Your task to perform on an android device: Clear the cart on ebay.com. Search for razer kraken on ebay.com, select the first entry, and add it to the cart. Image 0: 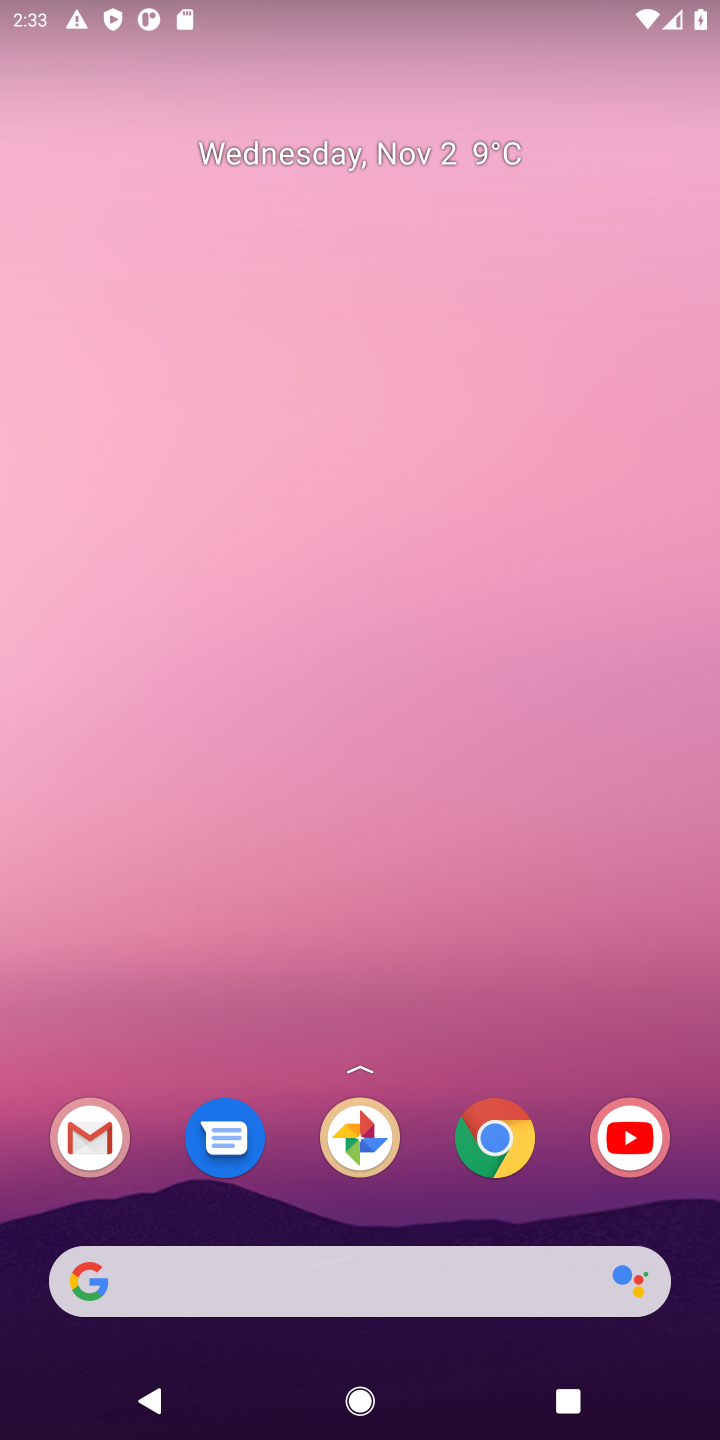
Step 0: click (507, 1150)
Your task to perform on an android device: Clear the cart on ebay.com. Search for razer kraken on ebay.com, select the first entry, and add it to the cart. Image 1: 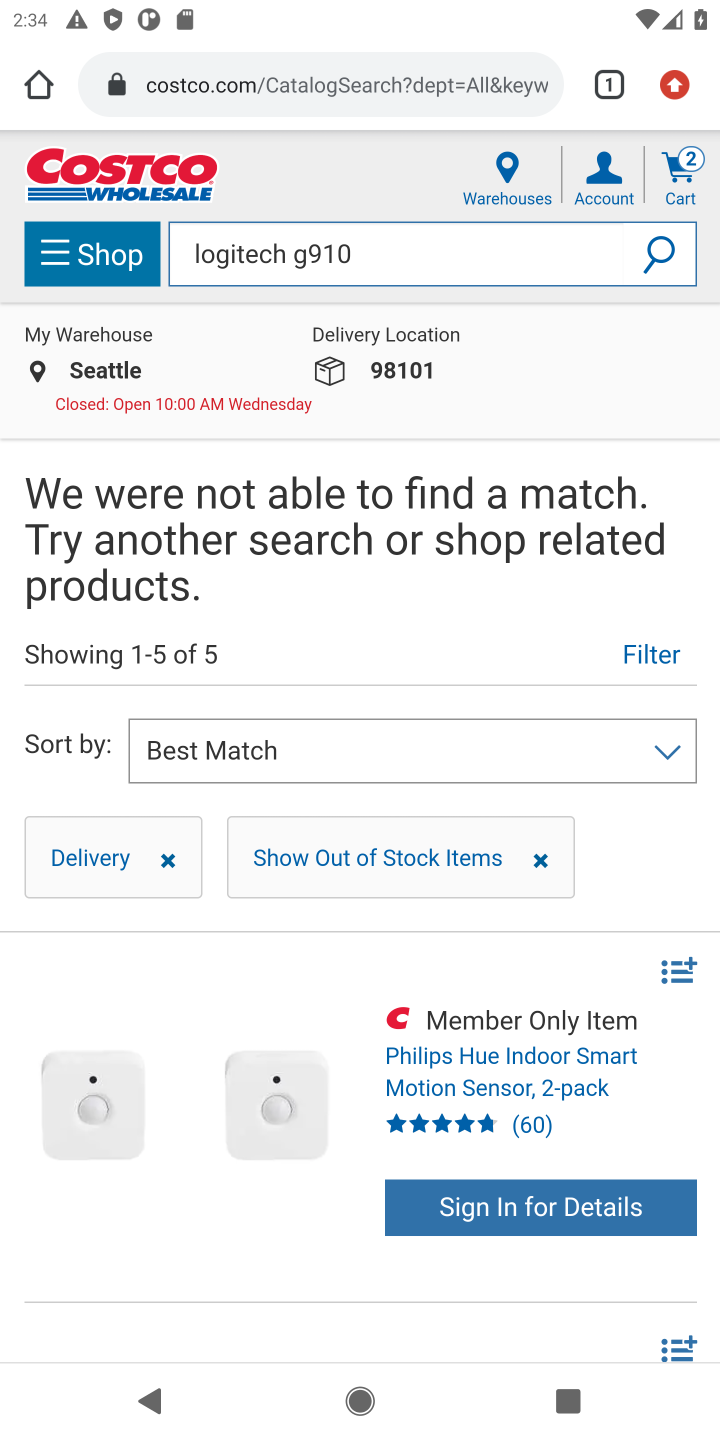
Step 1: click (370, 86)
Your task to perform on an android device: Clear the cart on ebay.com. Search for razer kraken on ebay.com, select the first entry, and add it to the cart. Image 2: 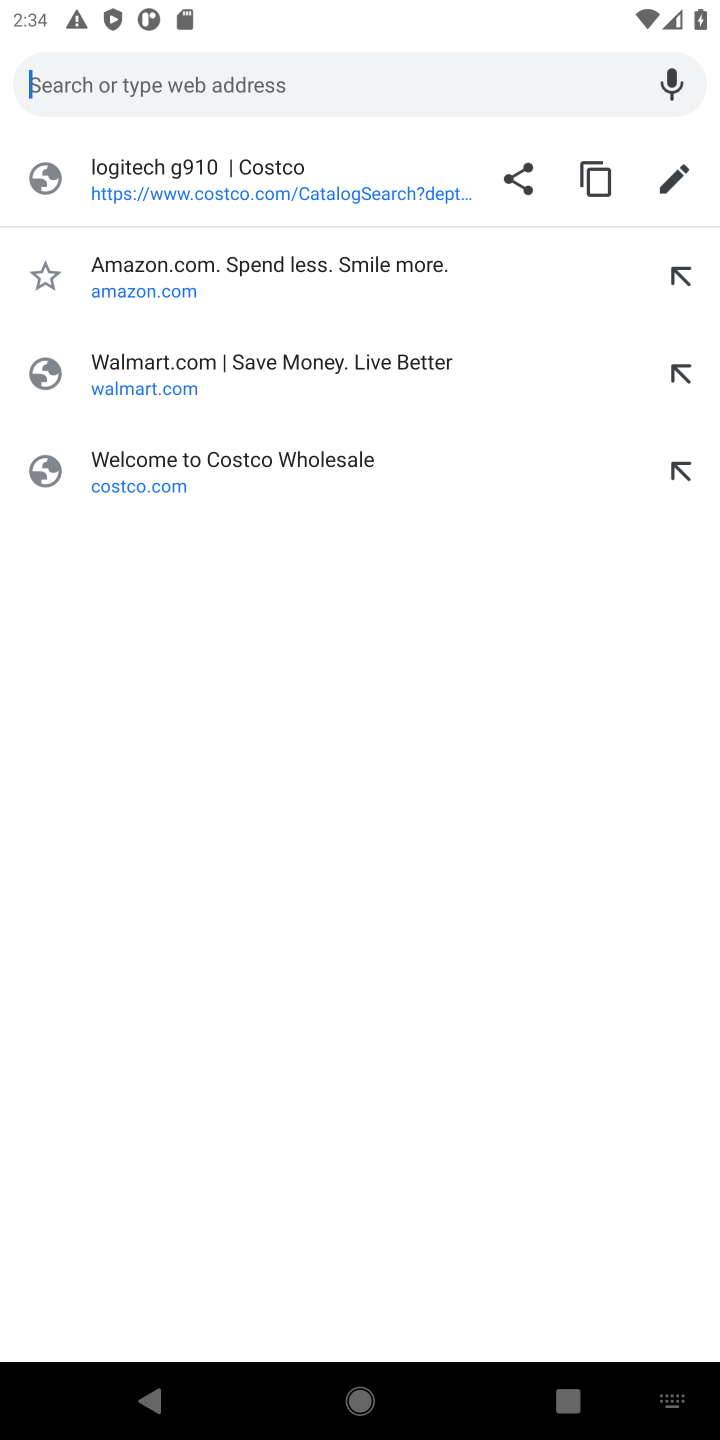
Step 2: type "ebay"
Your task to perform on an android device: Clear the cart on ebay.com. Search for razer kraken on ebay.com, select the first entry, and add it to the cart. Image 3: 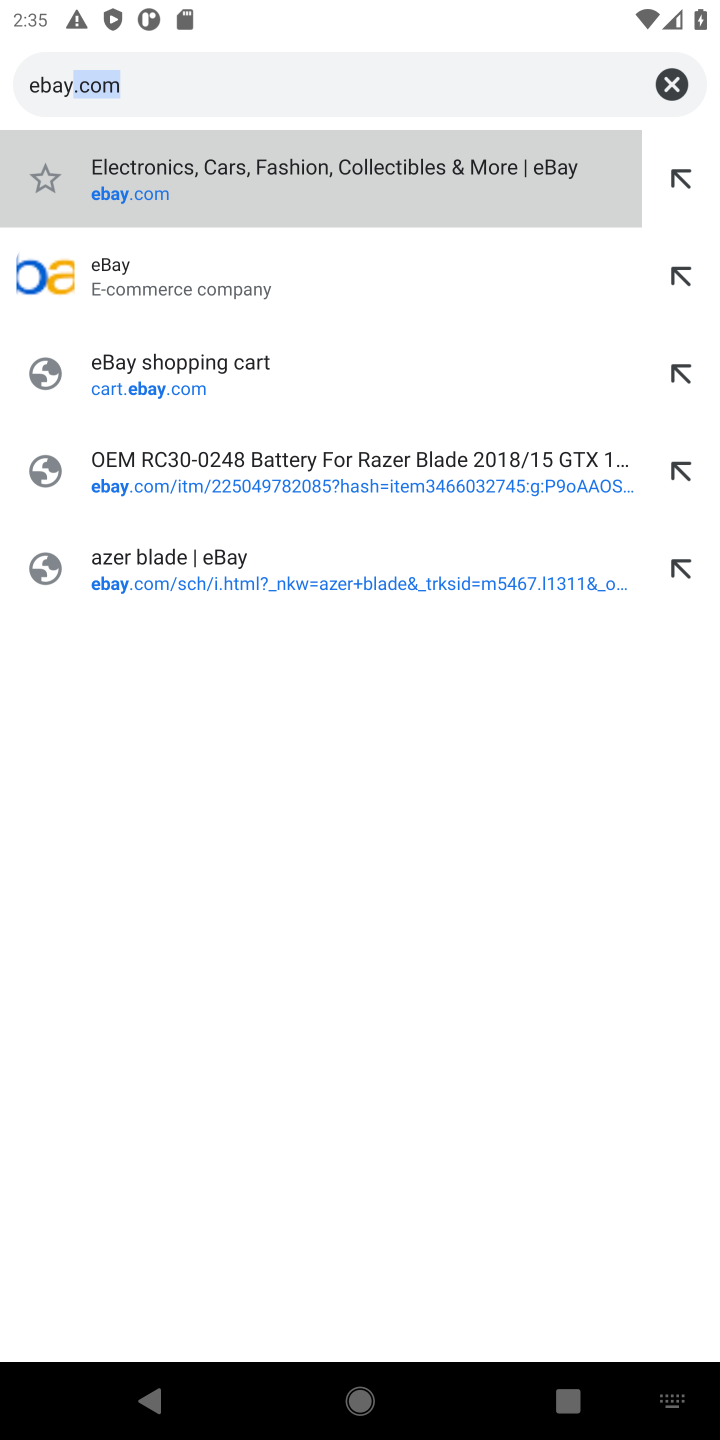
Step 3: click (274, 272)
Your task to perform on an android device: Clear the cart on ebay.com. Search for razer kraken on ebay.com, select the first entry, and add it to the cart. Image 4: 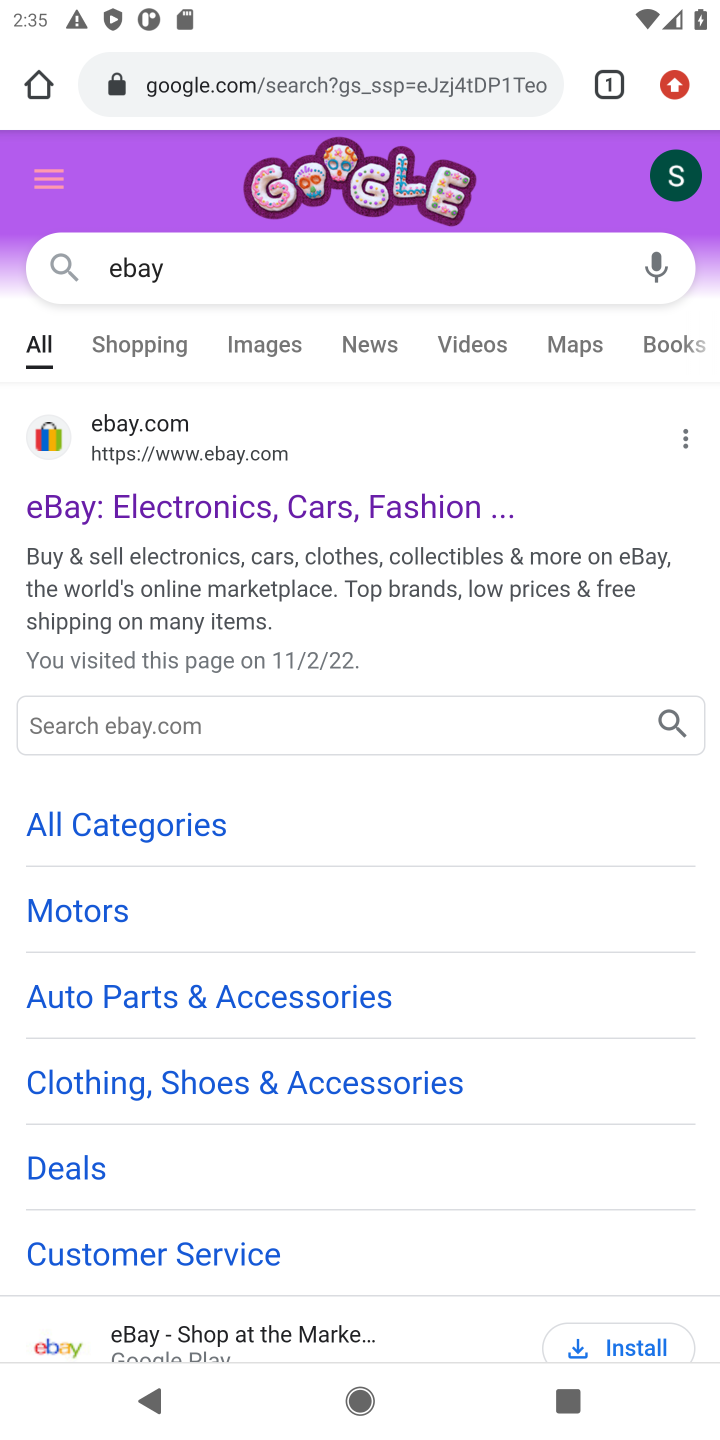
Step 4: click (70, 517)
Your task to perform on an android device: Clear the cart on ebay.com. Search for razer kraken on ebay.com, select the first entry, and add it to the cart. Image 5: 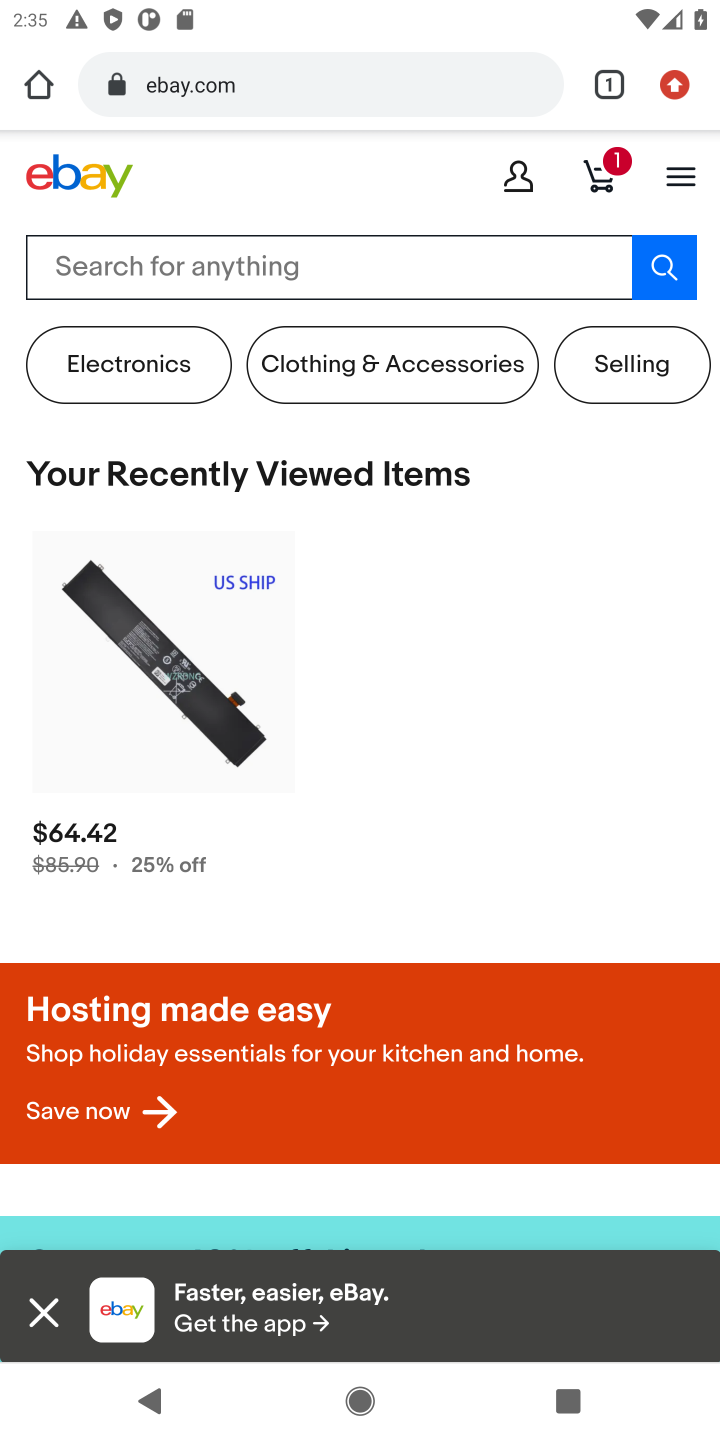
Step 5: click (273, 256)
Your task to perform on an android device: Clear the cart on ebay.com. Search for razer kraken on ebay.com, select the first entry, and add it to the cart. Image 6: 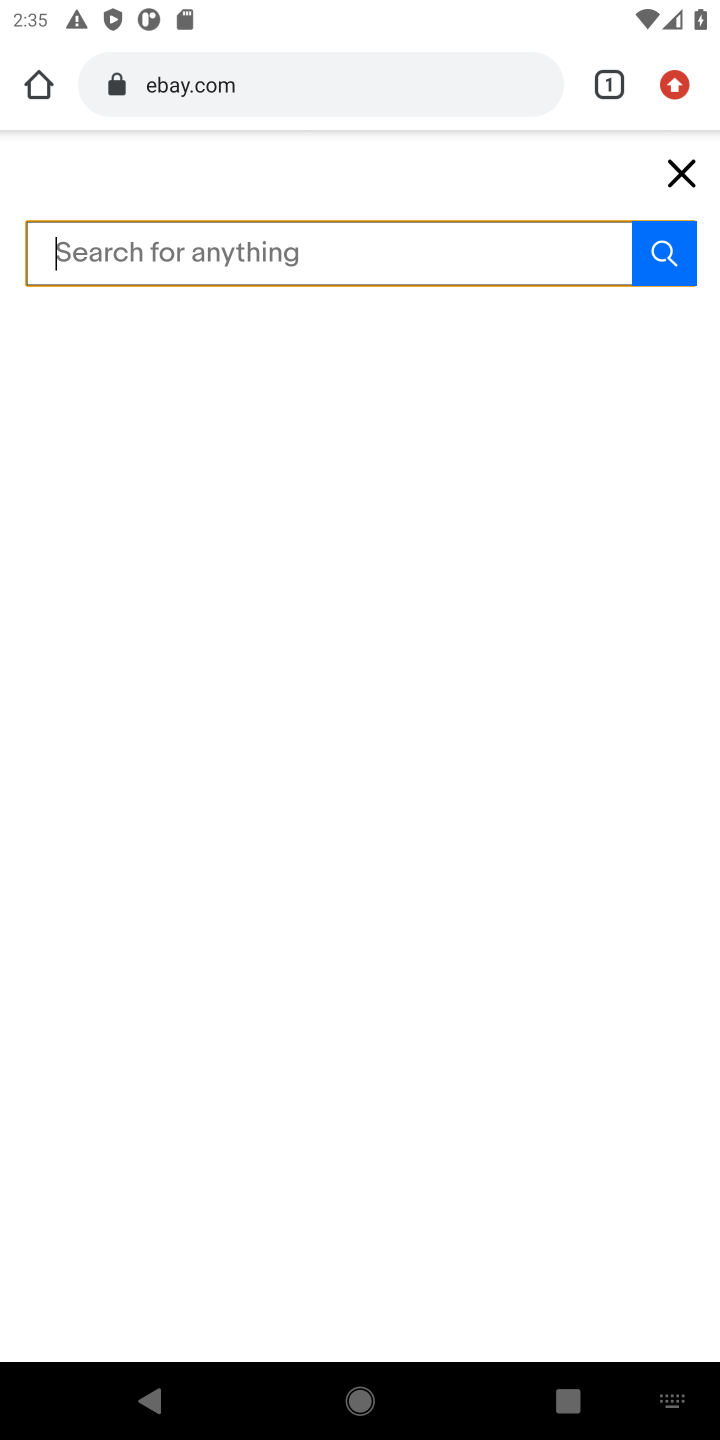
Step 6: click (593, 183)
Your task to perform on an android device: Clear the cart on ebay.com. Search for razer kraken on ebay.com, select the first entry, and add it to the cart. Image 7: 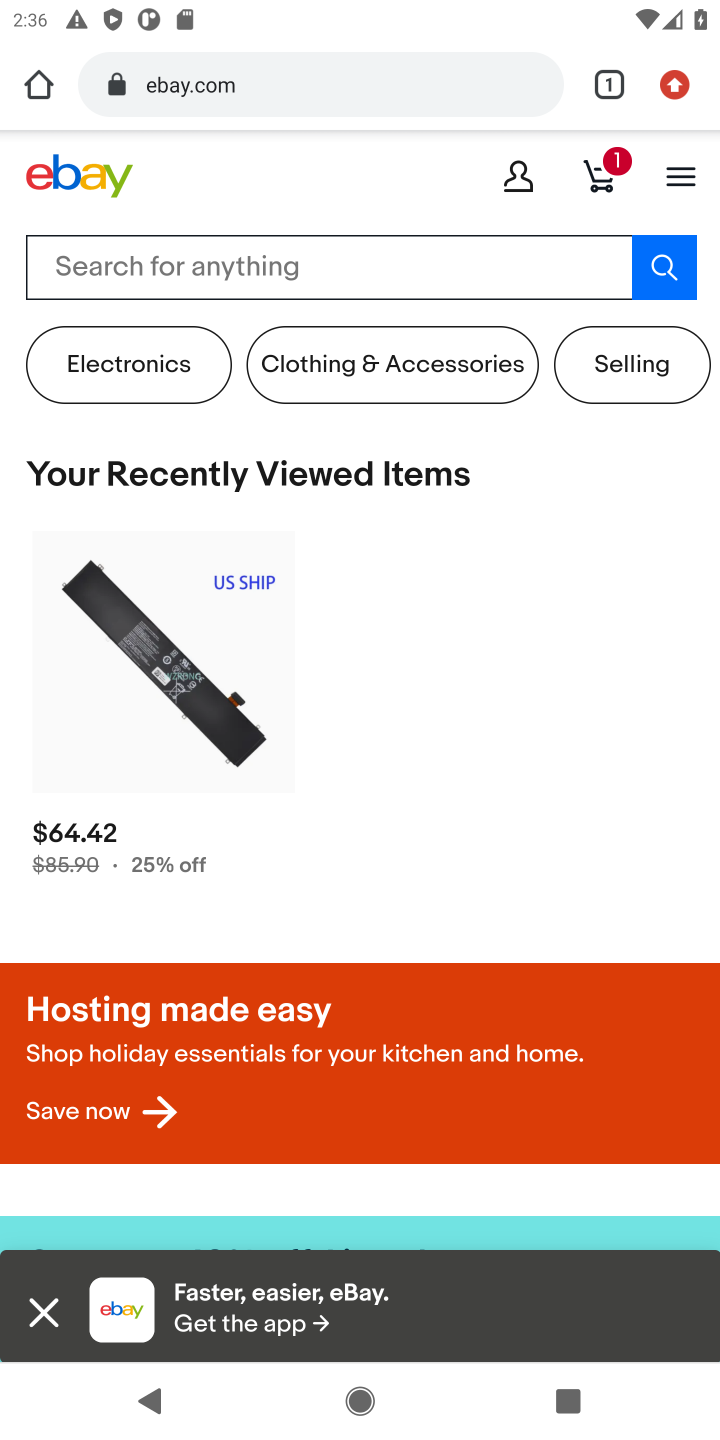
Step 7: click (615, 181)
Your task to perform on an android device: Clear the cart on ebay.com. Search for razer kraken on ebay.com, select the first entry, and add it to the cart. Image 8: 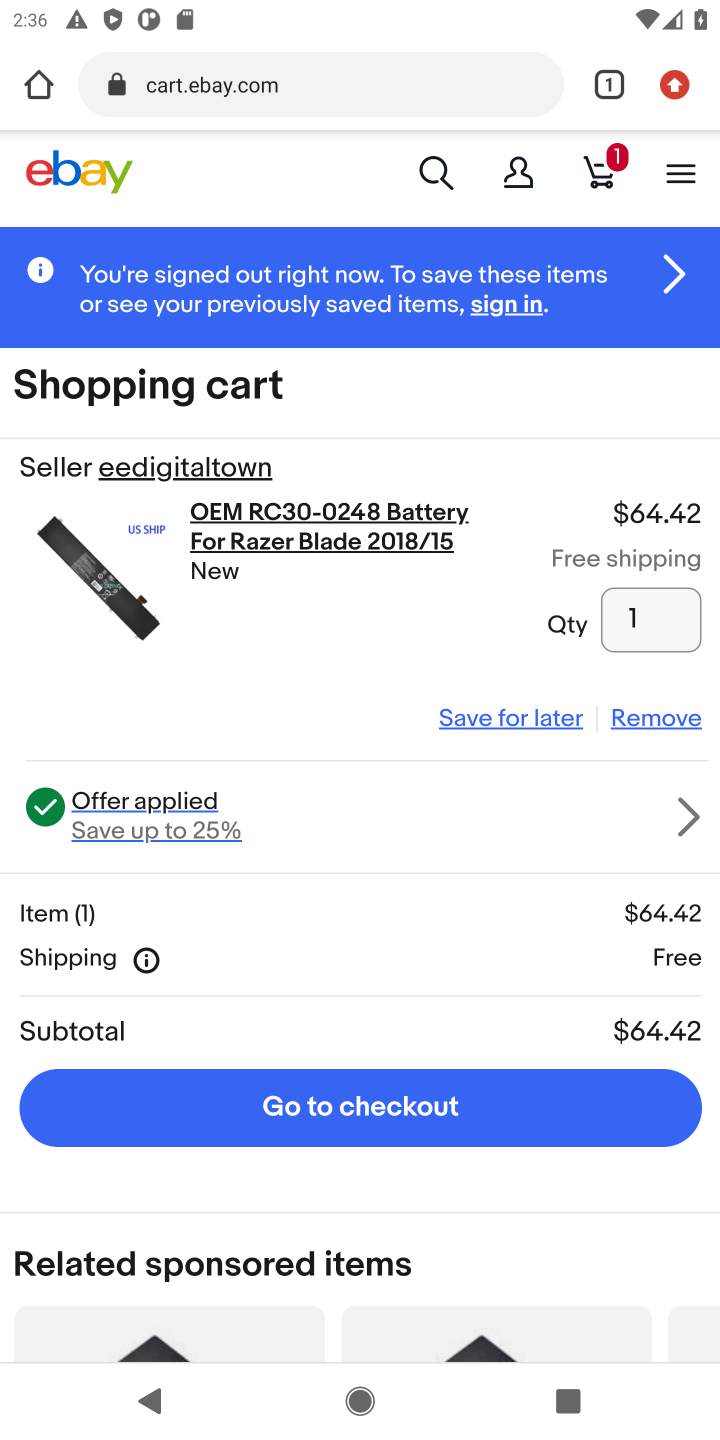
Step 8: click (645, 712)
Your task to perform on an android device: Clear the cart on ebay.com. Search for razer kraken on ebay.com, select the first entry, and add it to the cart. Image 9: 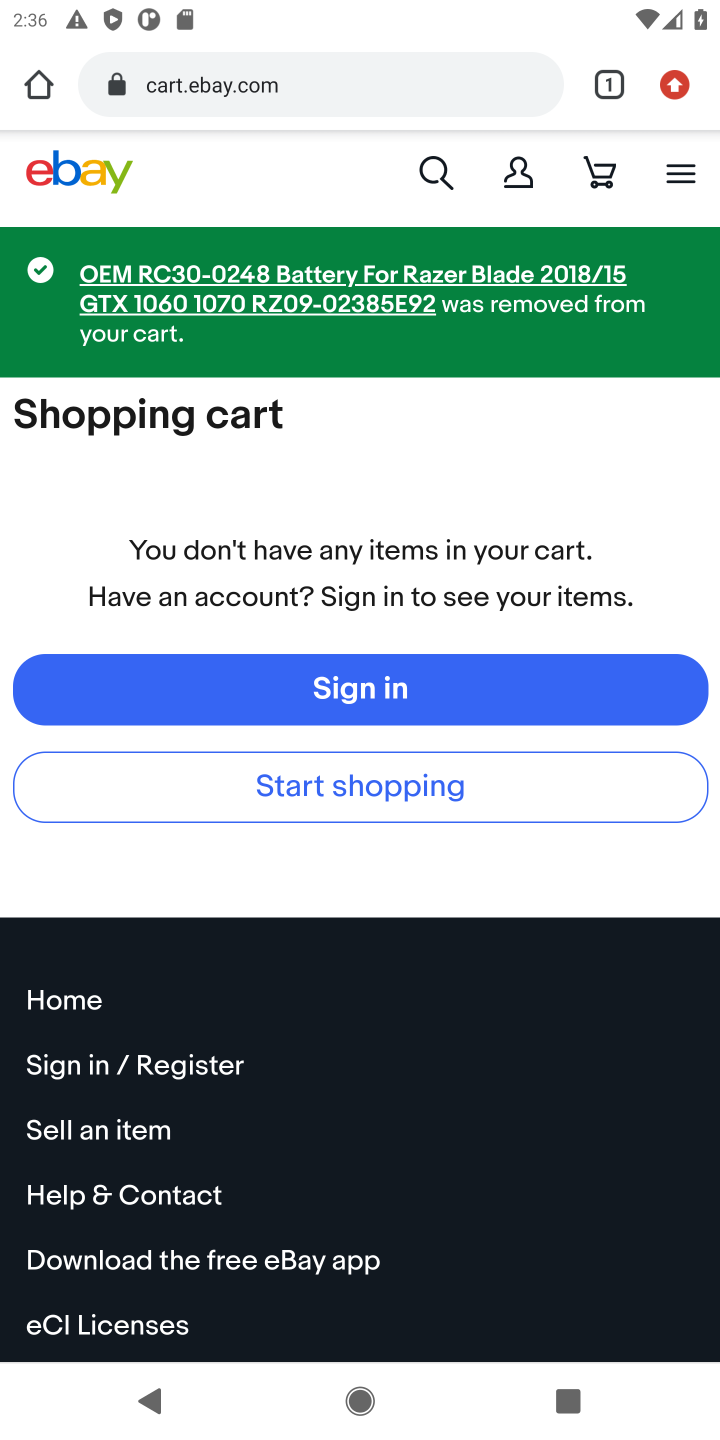
Step 9: click (443, 172)
Your task to perform on an android device: Clear the cart on ebay.com. Search for razer kraken on ebay.com, select the first entry, and add it to the cart. Image 10: 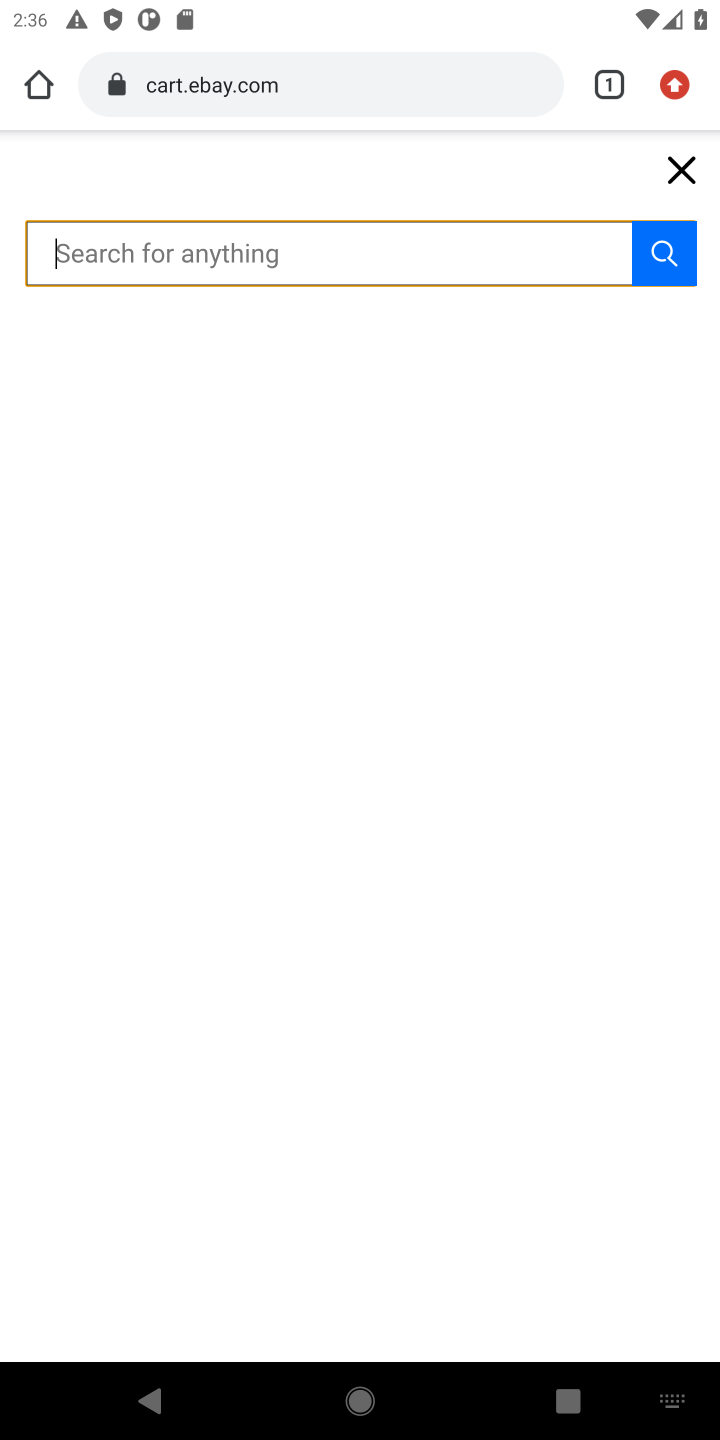
Step 10: type " razer kraken "
Your task to perform on an android device: Clear the cart on ebay.com. Search for razer kraken on ebay.com, select the first entry, and add it to the cart. Image 11: 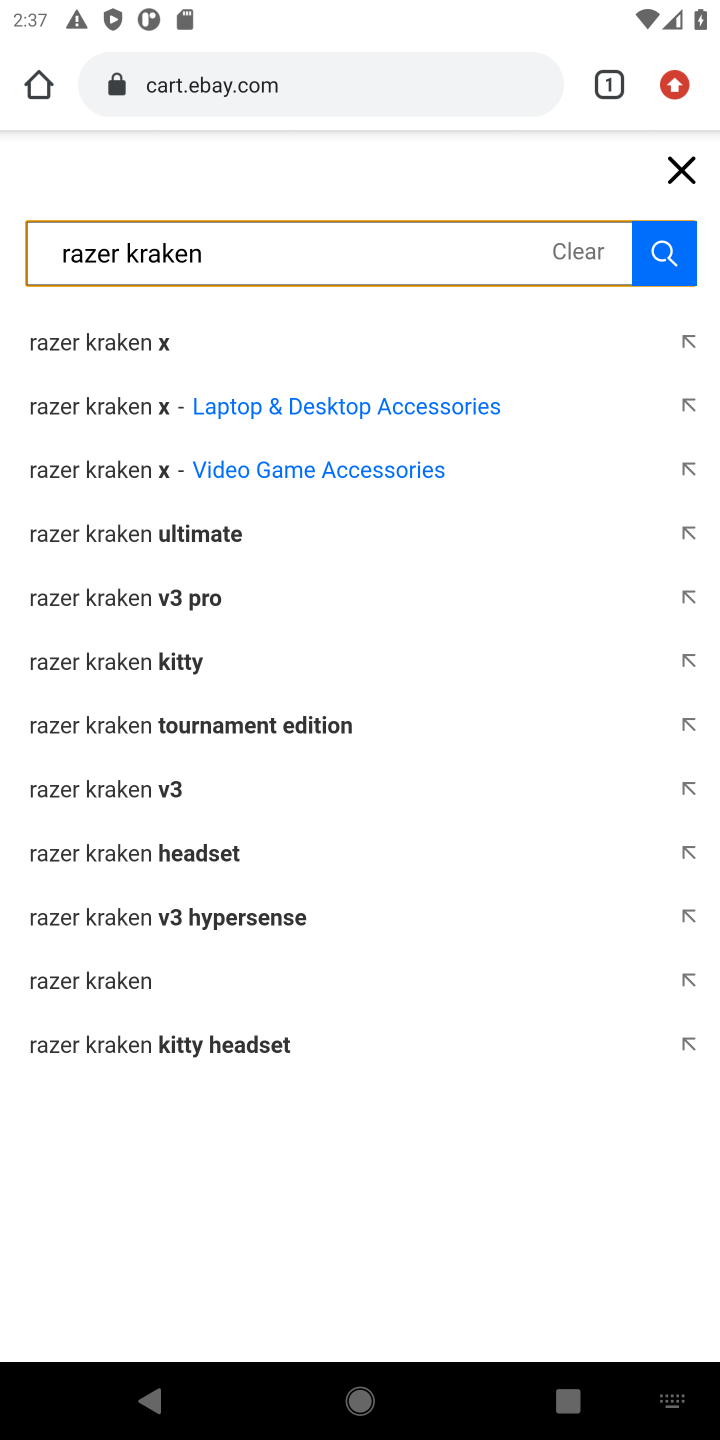
Step 11: click (667, 243)
Your task to perform on an android device: Clear the cart on ebay.com. Search for razer kraken on ebay.com, select the first entry, and add it to the cart. Image 12: 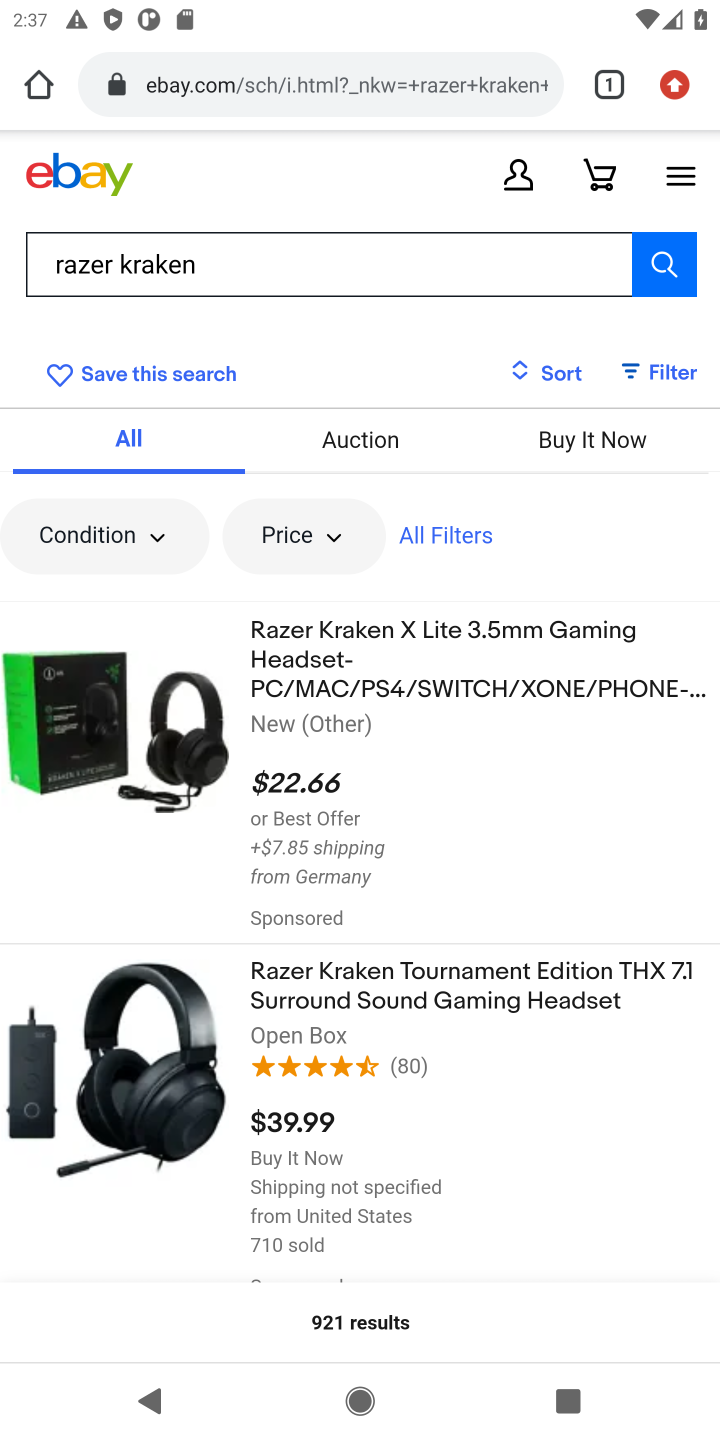
Step 12: click (394, 631)
Your task to perform on an android device: Clear the cart on ebay.com. Search for razer kraken on ebay.com, select the first entry, and add it to the cart. Image 13: 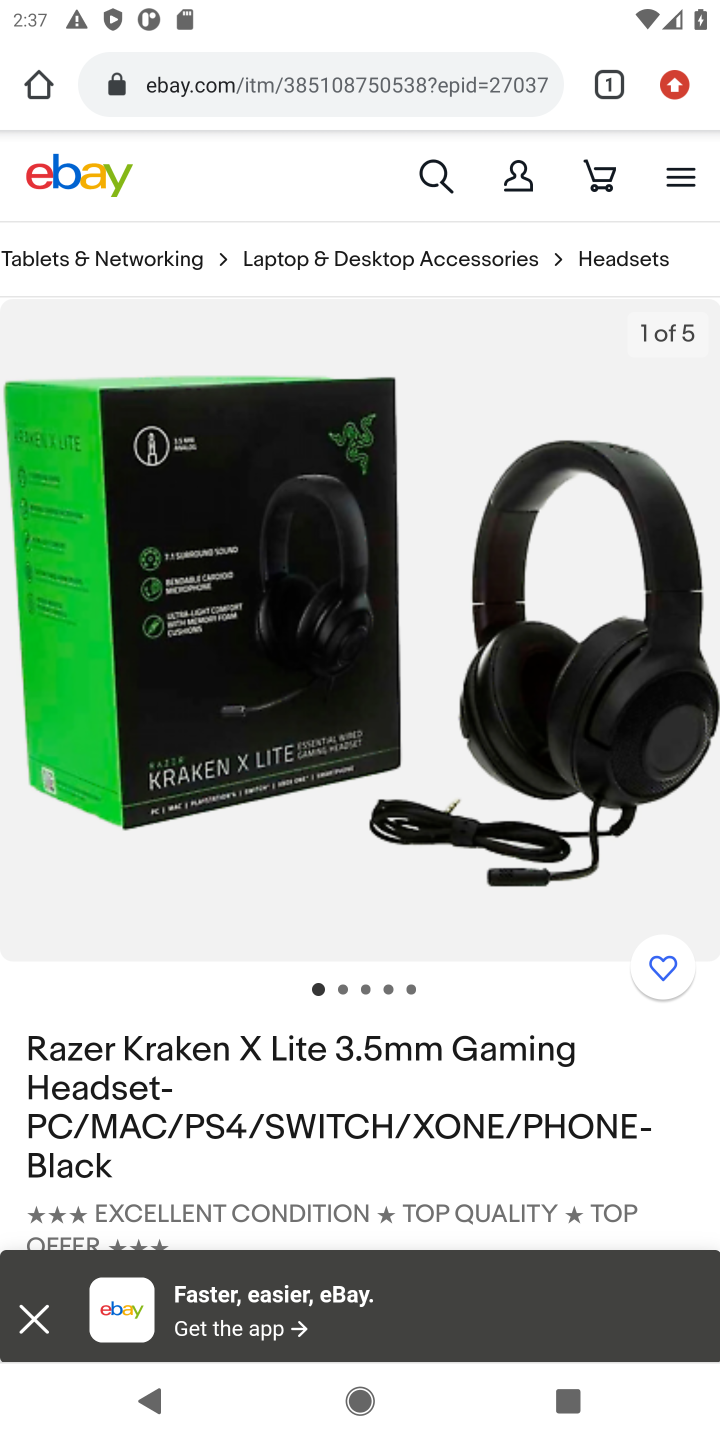
Step 13: drag from (280, 1162) to (373, 188)
Your task to perform on an android device: Clear the cart on ebay.com. Search for razer kraken on ebay.com, select the first entry, and add it to the cart. Image 14: 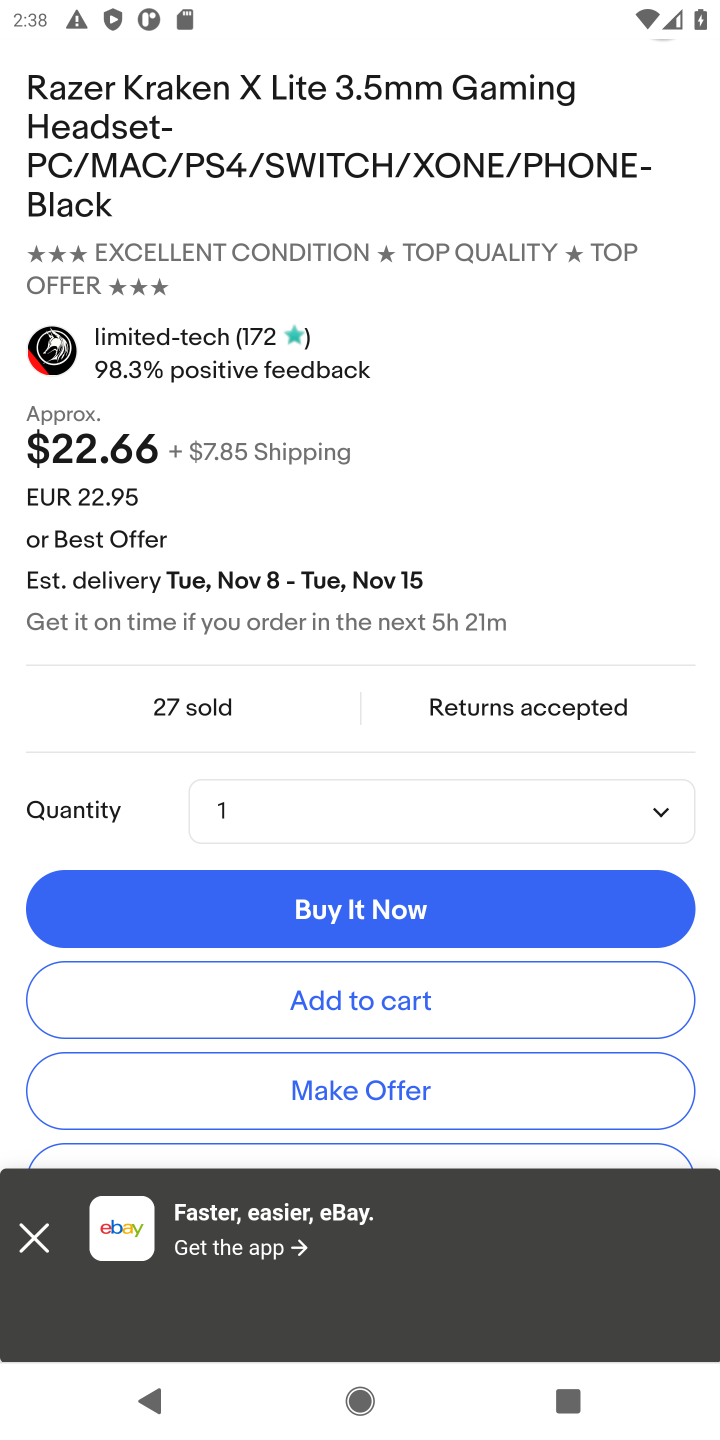
Step 14: click (350, 1002)
Your task to perform on an android device: Clear the cart on ebay.com. Search for razer kraken on ebay.com, select the first entry, and add it to the cart. Image 15: 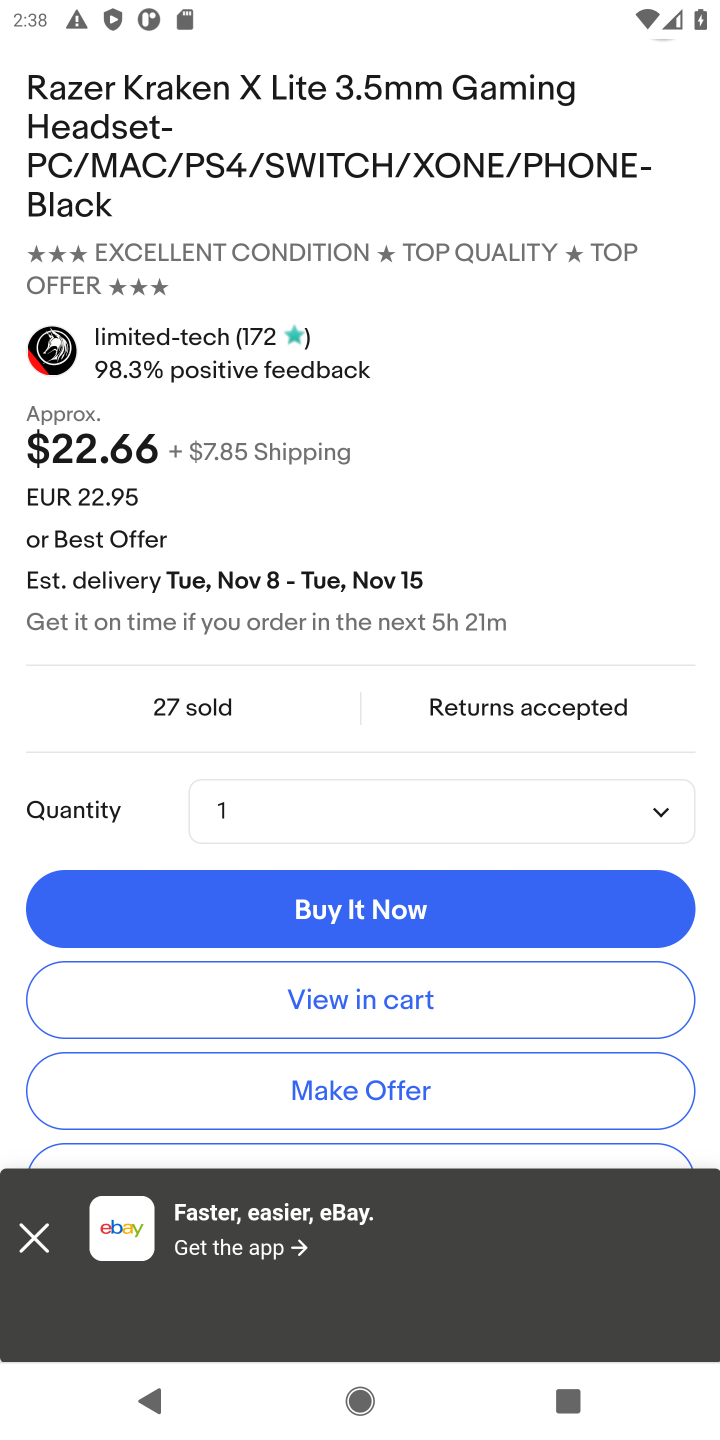
Step 15: task complete